Your task to perform on an android device: Look up the book "The Girl on the Train". Image 0: 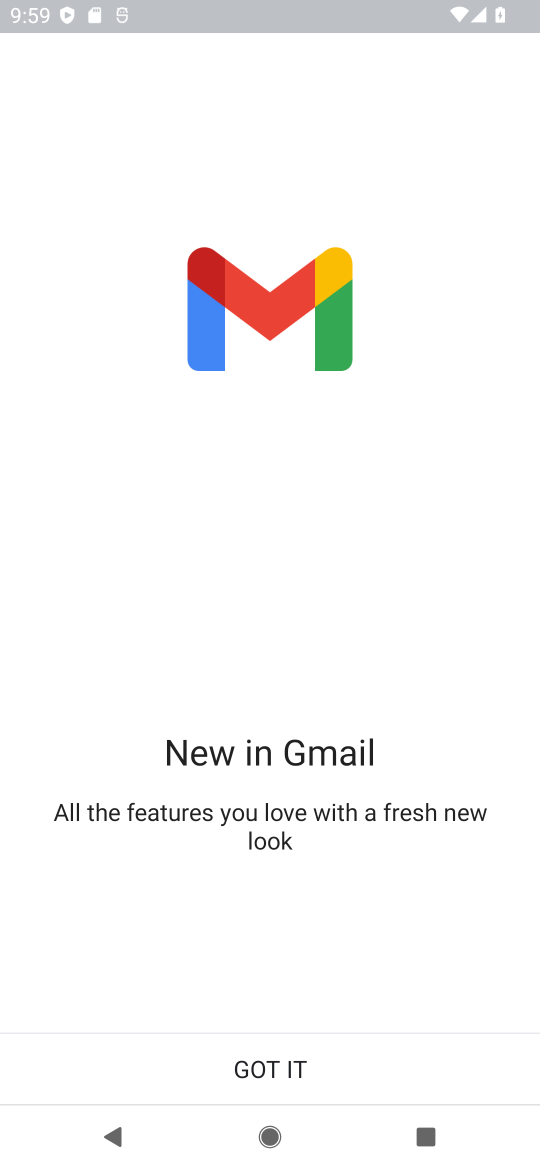
Step 0: click (237, 1057)
Your task to perform on an android device: Look up the book "The Girl on the Train". Image 1: 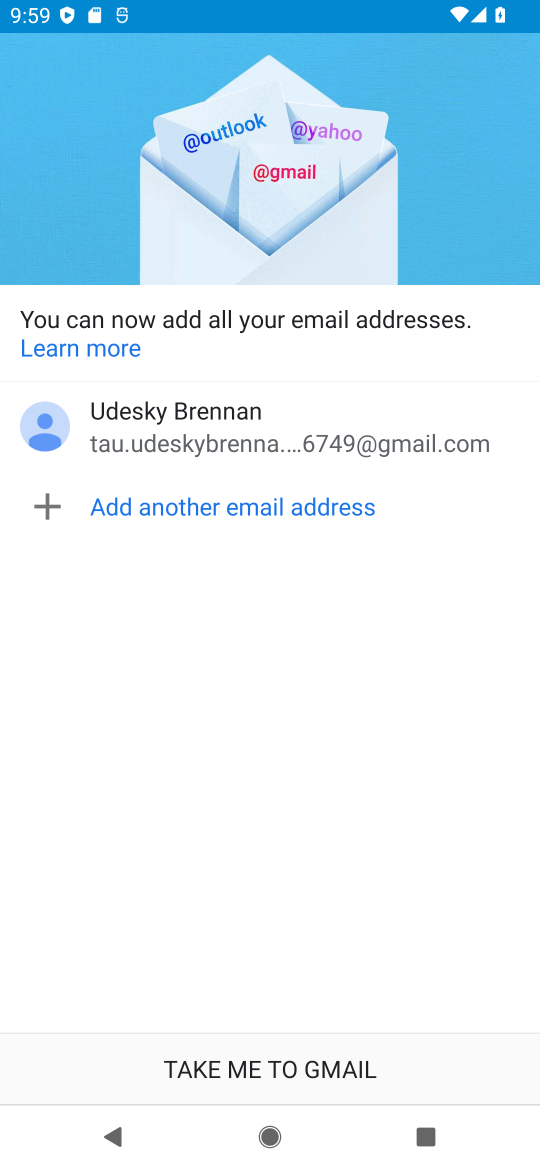
Step 1: press home button
Your task to perform on an android device: Look up the book "The Girl on the Train". Image 2: 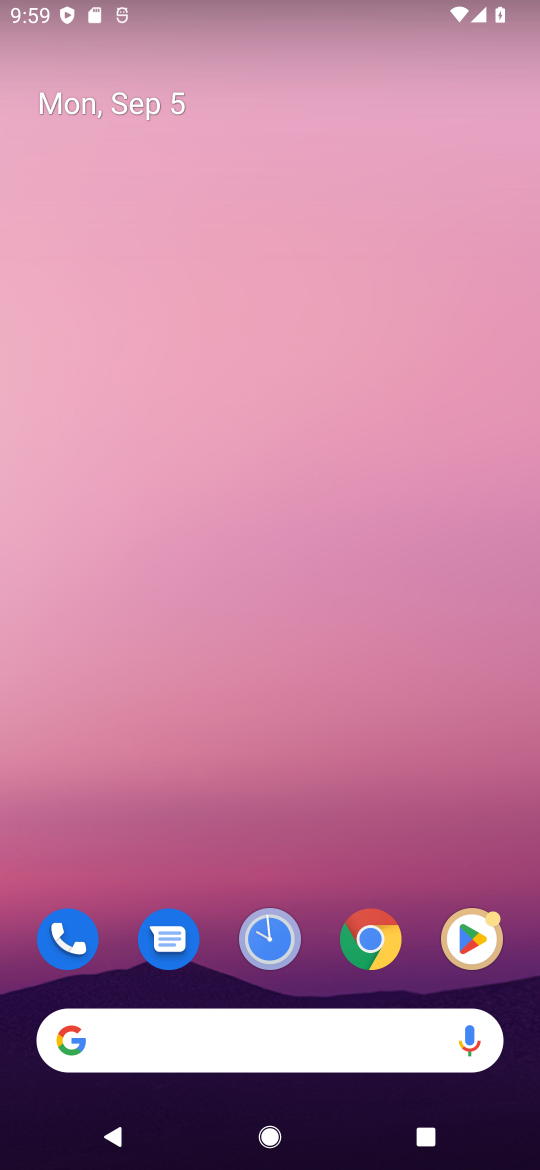
Step 2: drag from (328, 856) to (293, 134)
Your task to perform on an android device: Look up the book "The Girl on the Train". Image 3: 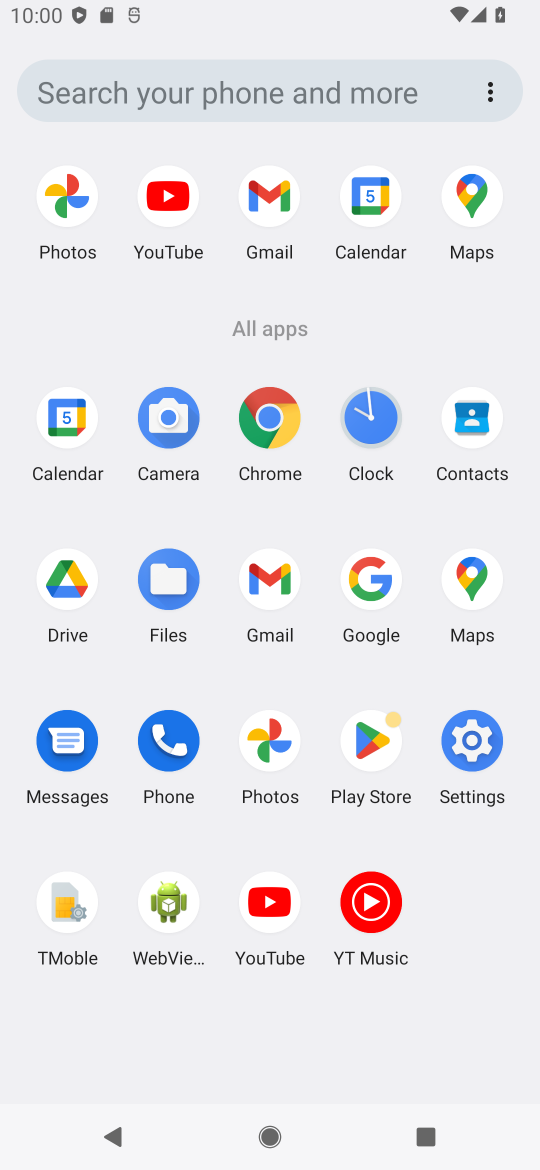
Step 3: click (271, 411)
Your task to perform on an android device: Look up the book "The Girl on the Train". Image 4: 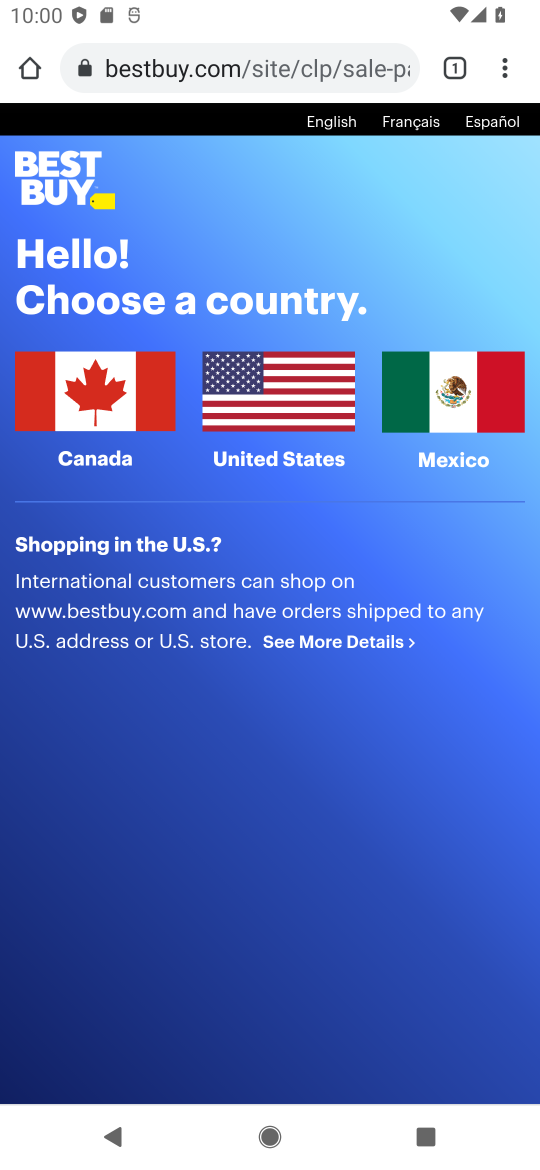
Step 4: click (169, 70)
Your task to perform on an android device: Look up the book "The Girl on the Train". Image 5: 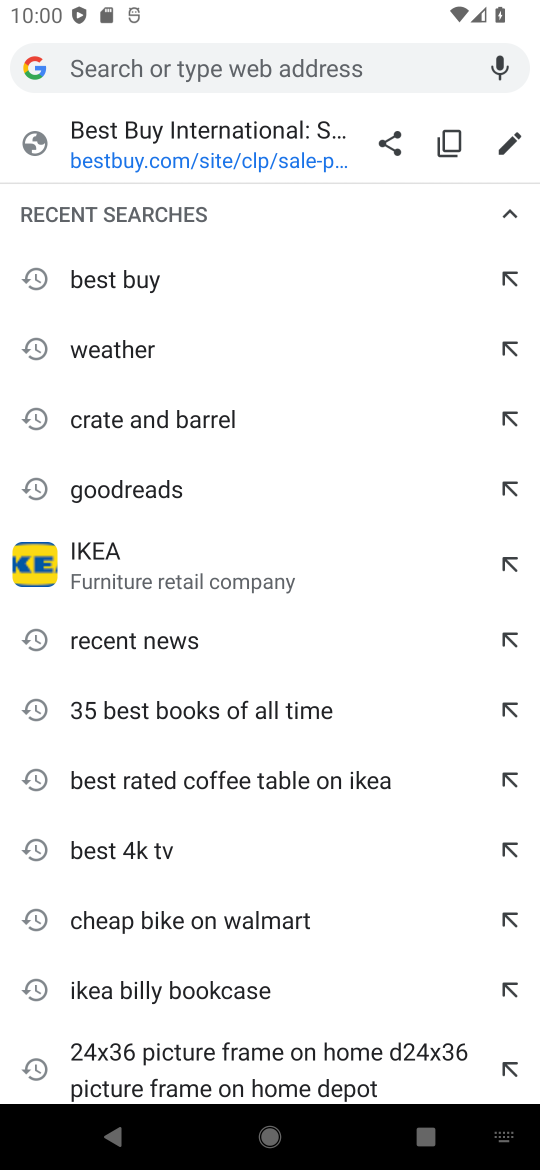
Step 5: type "The Girl on the Train"
Your task to perform on an android device: Look up the book "The Girl on the Train". Image 6: 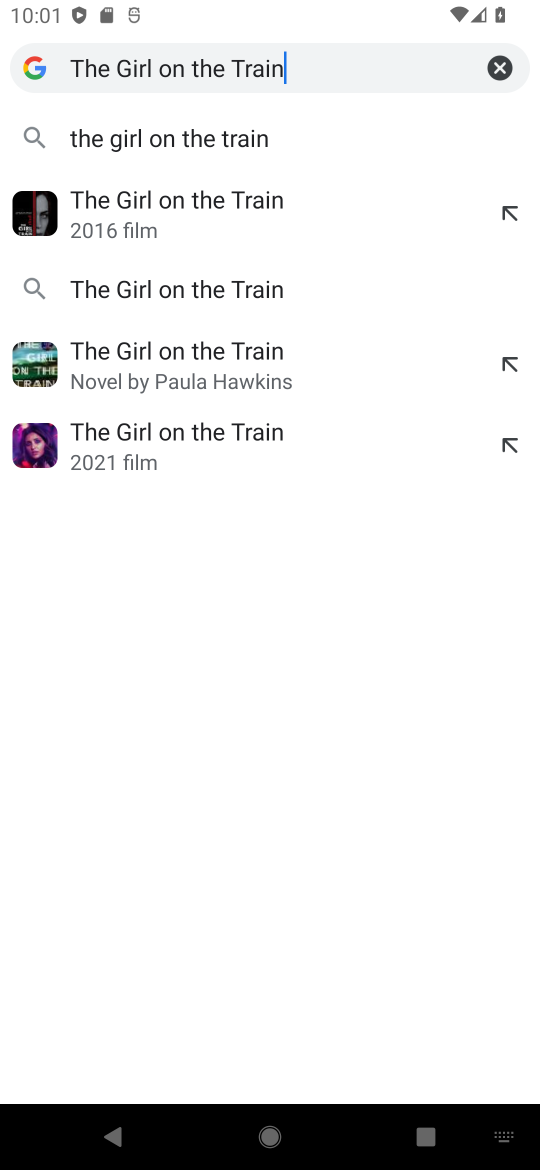
Step 6: click (181, 147)
Your task to perform on an android device: Look up the book "The Girl on the Train". Image 7: 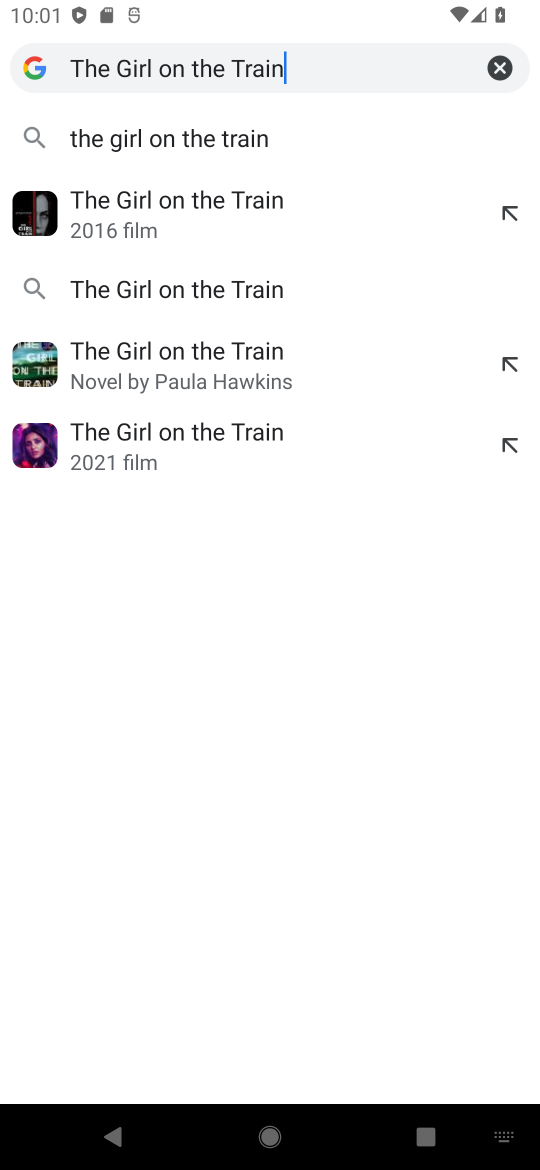
Step 7: click (232, 147)
Your task to perform on an android device: Look up the book "The Girl on the Train". Image 8: 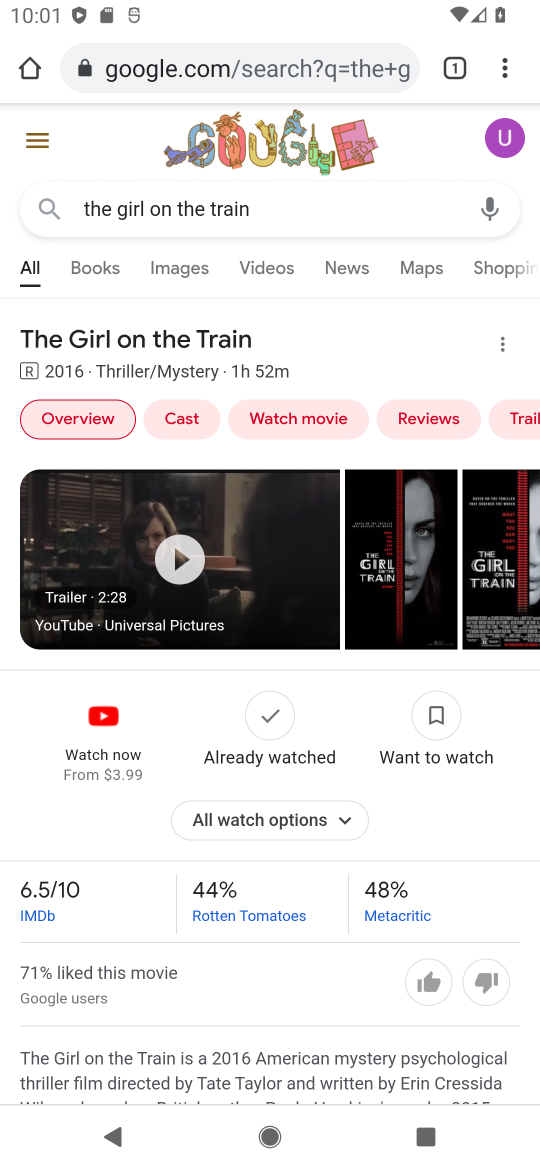
Step 8: click (153, 357)
Your task to perform on an android device: Look up the book "The Girl on the Train". Image 9: 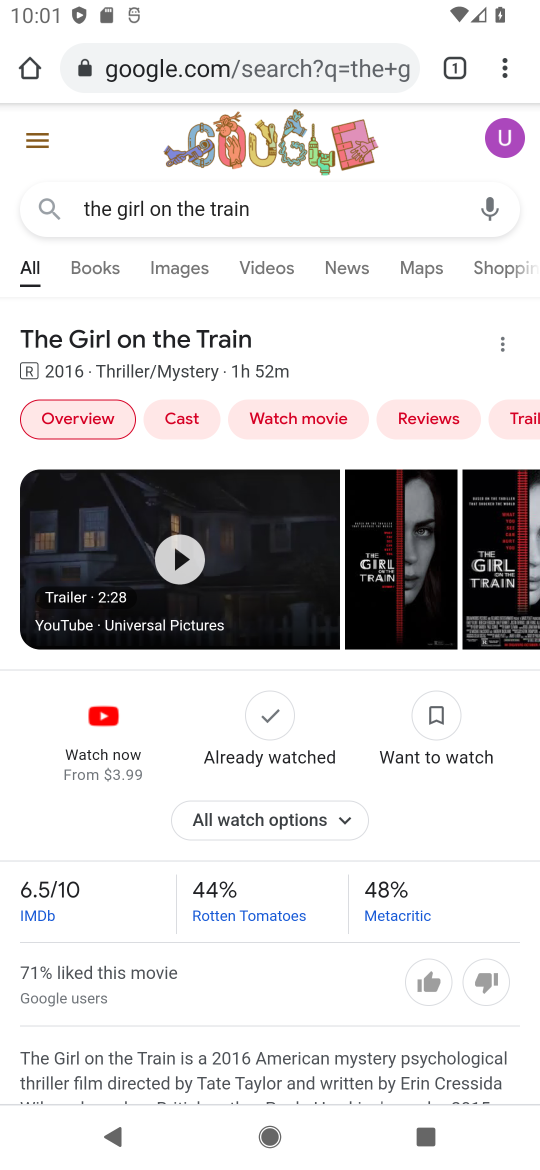
Step 9: task complete